Your task to perform on an android device: Open ESPN.com Image 0: 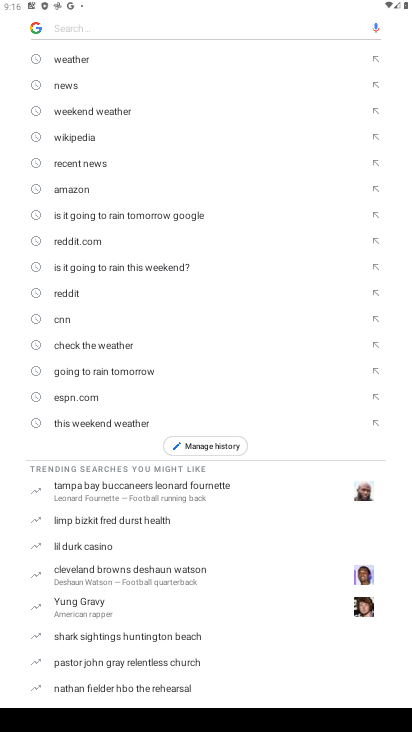
Step 0: click (101, 399)
Your task to perform on an android device: Open ESPN.com Image 1: 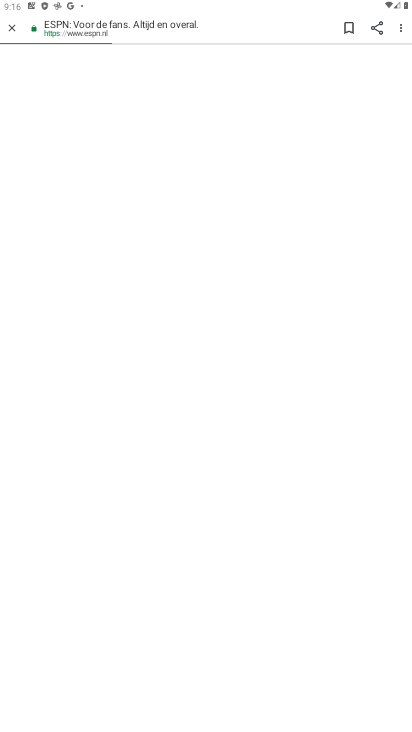
Step 1: task complete